Your task to perform on an android device: Open Chrome and go to settings Image 0: 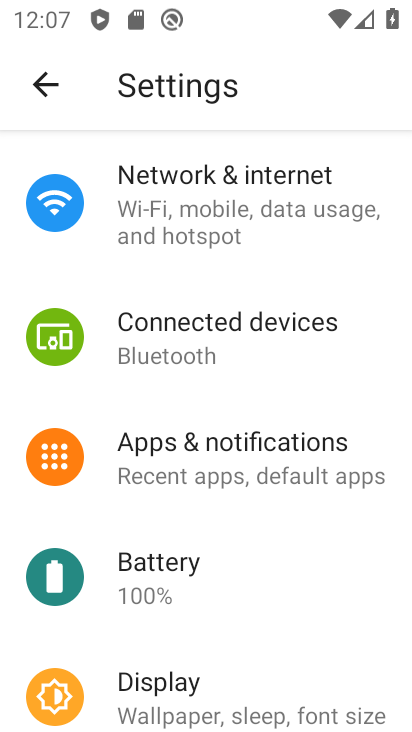
Step 0: press home button
Your task to perform on an android device: Open Chrome and go to settings Image 1: 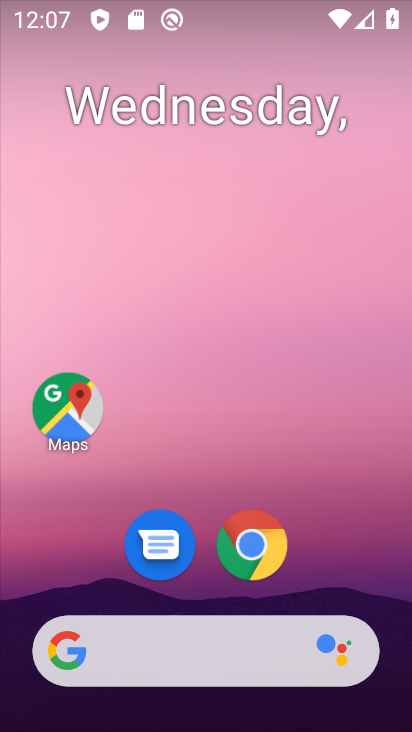
Step 1: click (232, 574)
Your task to perform on an android device: Open Chrome and go to settings Image 2: 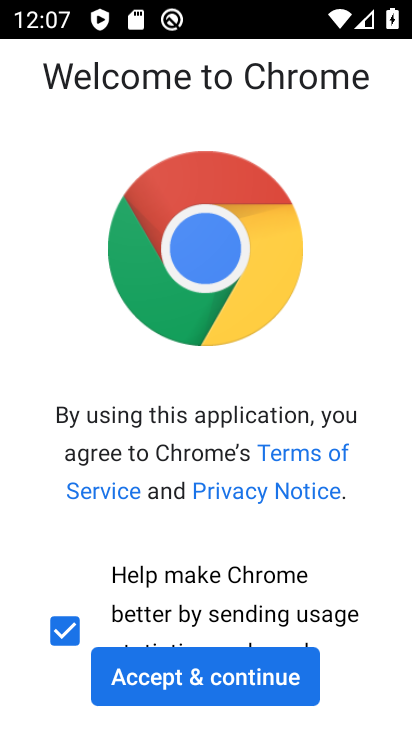
Step 2: click (134, 670)
Your task to perform on an android device: Open Chrome and go to settings Image 3: 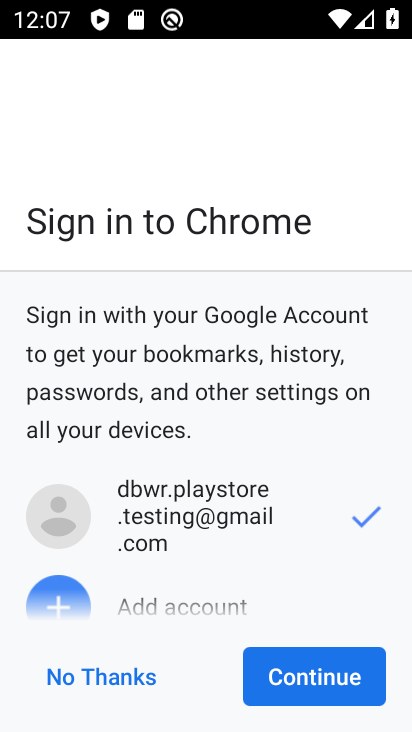
Step 3: click (269, 690)
Your task to perform on an android device: Open Chrome and go to settings Image 4: 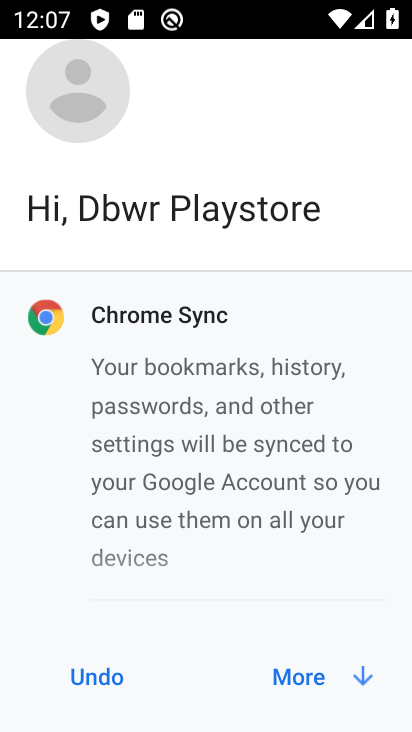
Step 4: click (290, 670)
Your task to perform on an android device: Open Chrome and go to settings Image 5: 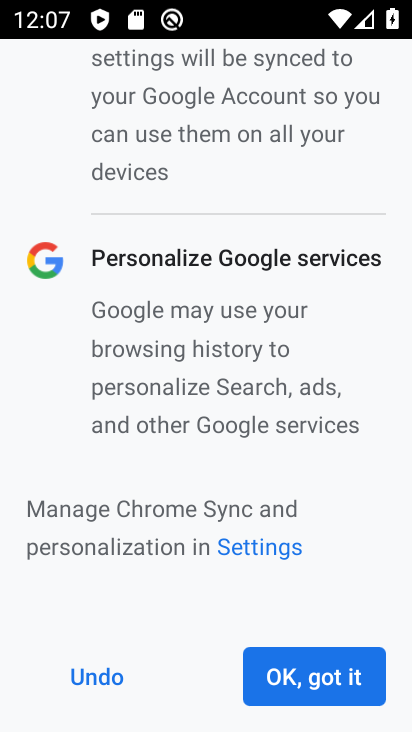
Step 5: click (290, 670)
Your task to perform on an android device: Open Chrome and go to settings Image 6: 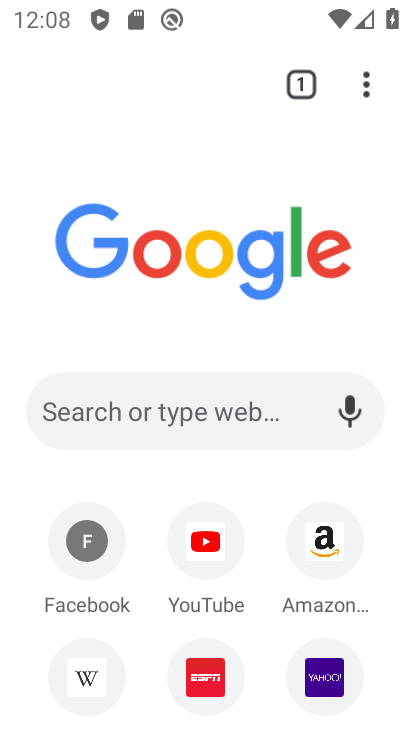
Step 6: click (375, 90)
Your task to perform on an android device: Open Chrome and go to settings Image 7: 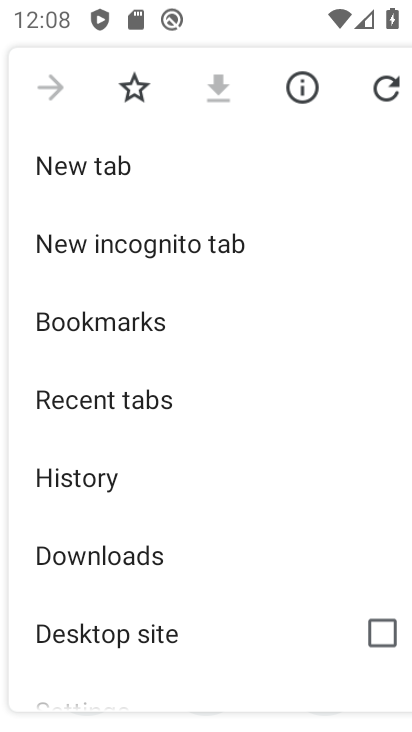
Step 7: drag from (207, 563) to (196, 484)
Your task to perform on an android device: Open Chrome and go to settings Image 8: 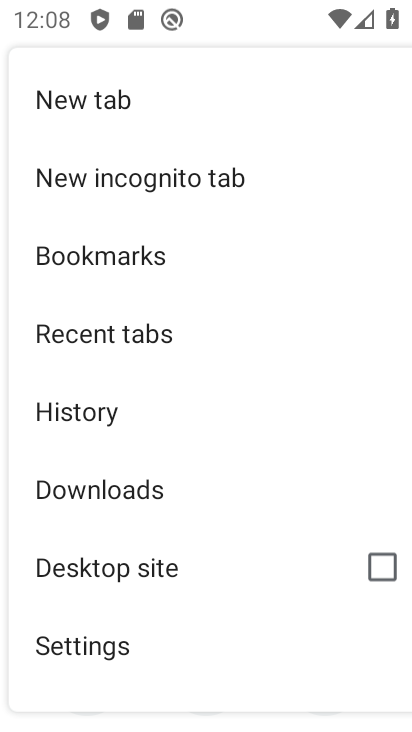
Step 8: click (185, 635)
Your task to perform on an android device: Open Chrome and go to settings Image 9: 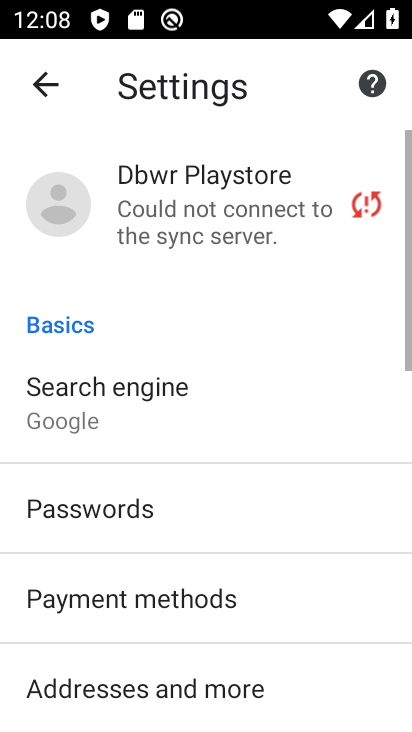
Step 9: task complete